Your task to perform on an android device: Set the phone to "Do not disturb". Image 0: 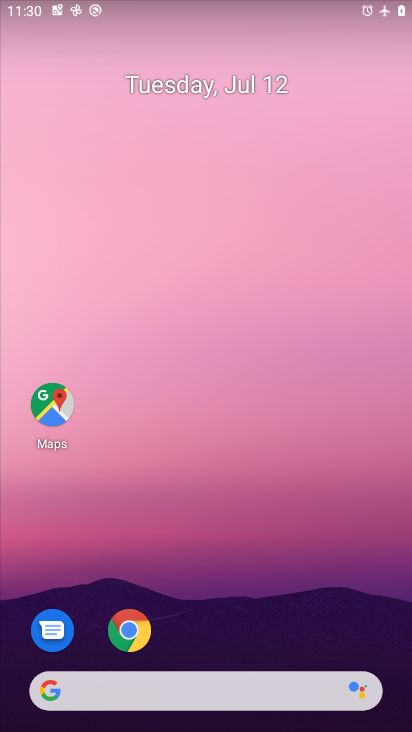
Step 0: press home button
Your task to perform on an android device: Set the phone to "Do not disturb". Image 1: 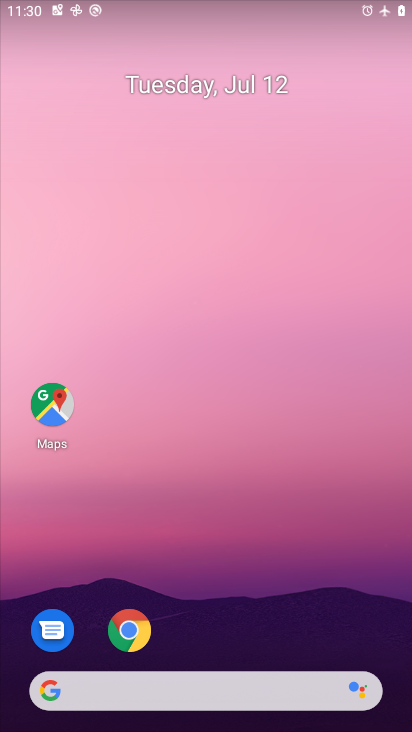
Step 1: drag from (259, 1) to (268, 451)
Your task to perform on an android device: Set the phone to "Do not disturb". Image 2: 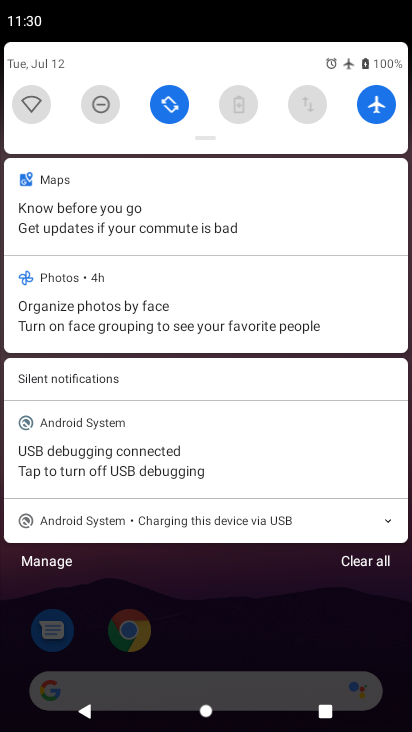
Step 2: drag from (205, 143) to (206, 557)
Your task to perform on an android device: Set the phone to "Do not disturb". Image 3: 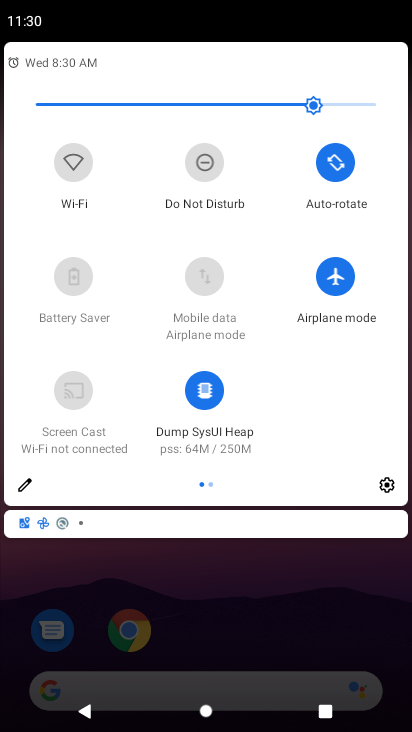
Step 3: click (204, 160)
Your task to perform on an android device: Set the phone to "Do not disturb". Image 4: 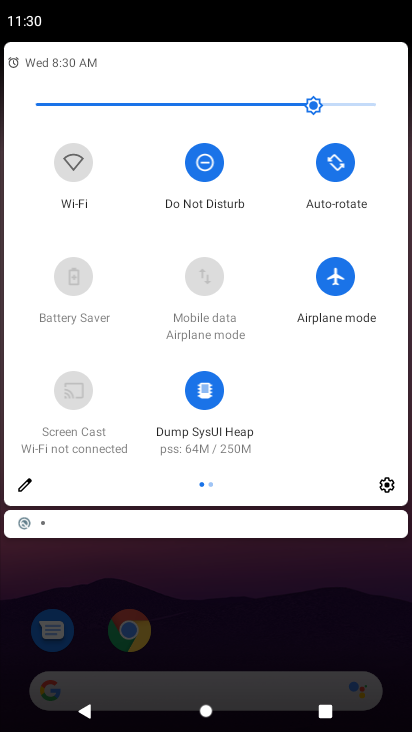
Step 4: task complete